Your task to perform on an android device: check the backup settings in the google photos Image 0: 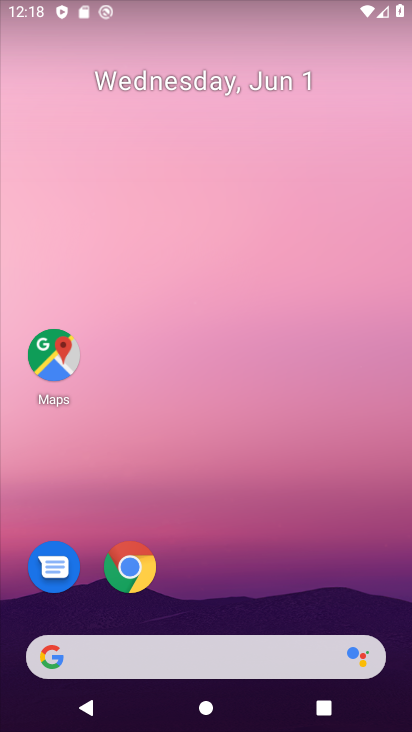
Step 0: drag from (210, 595) to (293, 167)
Your task to perform on an android device: check the backup settings in the google photos Image 1: 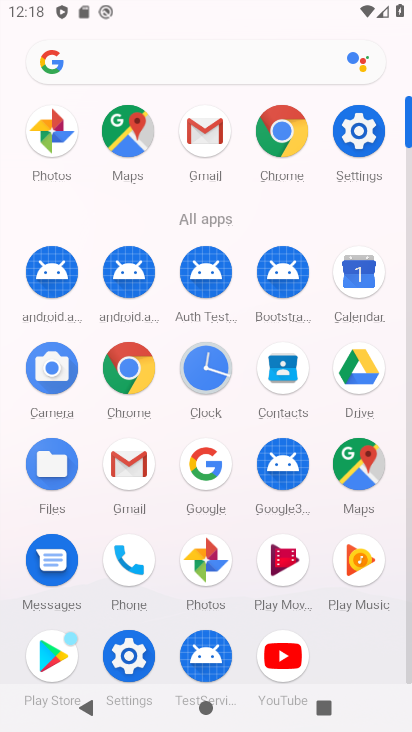
Step 1: click (217, 574)
Your task to perform on an android device: check the backup settings in the google photos Image 2: 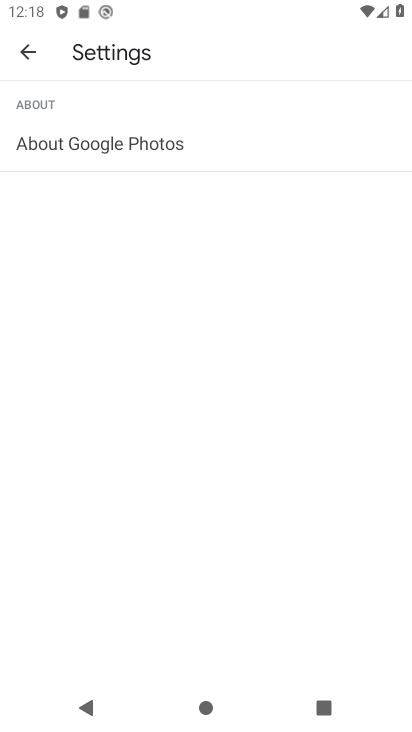
Step 2: press back button
Your task to perform on an android device: check the backup settings in the google photos Image 3: 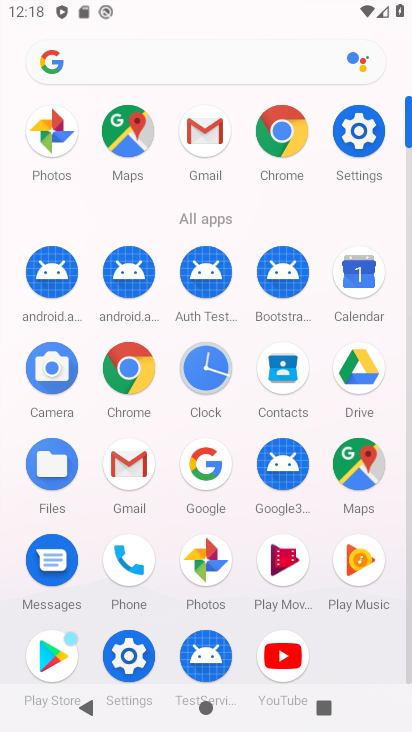
Step 3: click (213, 567)
Your task to perform on an android device: check the backup settings in the google photos Image 4: 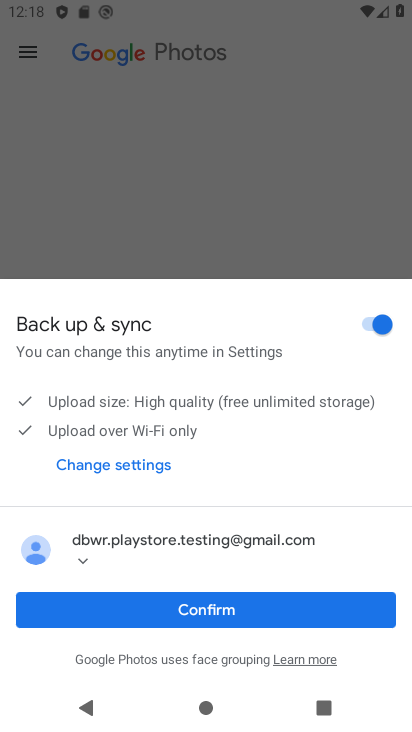
Step 4: click (186, 608)
Your task to perform on an android device: check the backup settings in the google photos Image 5: 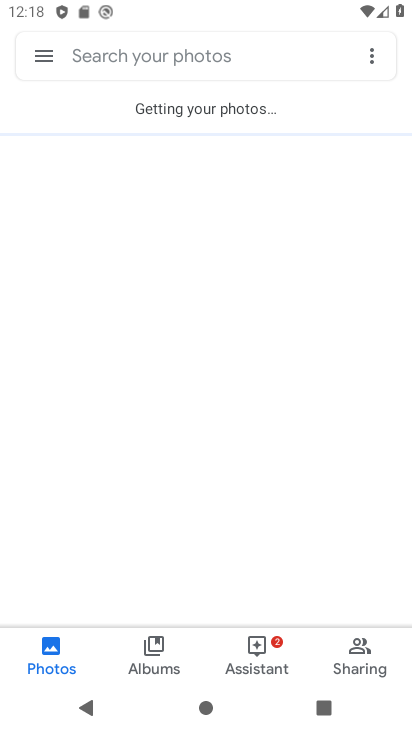
Step 5: click (35, 56)
Your task to perform on an android device: check the backup settings in the google photos Image 6: 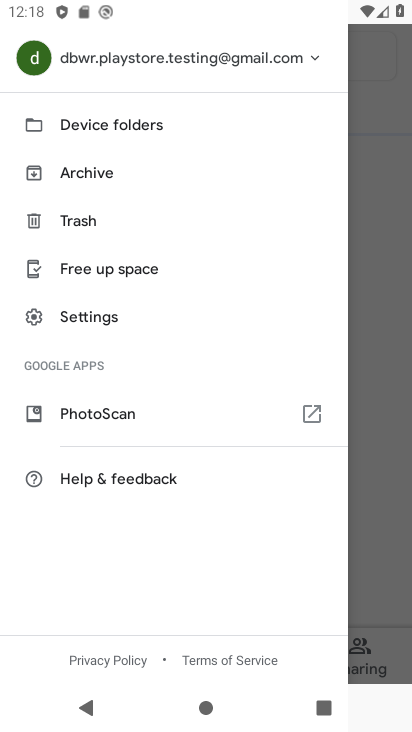
Step 6: click (87, 341)
Your task to perform on an android device: check the backup settings in the google photos Image 7: 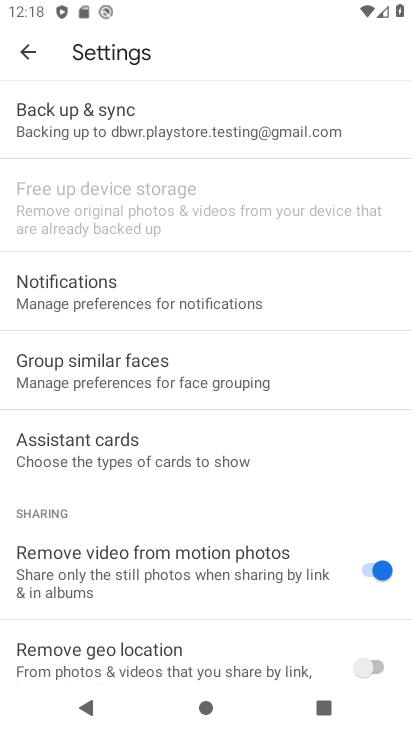
Step 7: click (74, 116)
Your task to perform on an android device: check the backup settings in the google photos Image 8: 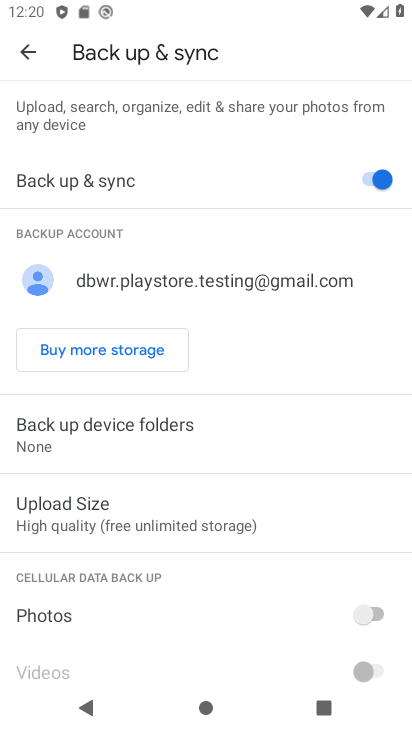
Step 8: task complete